Your task to perform on an android device: set default search engine in the chrome app Image 0: 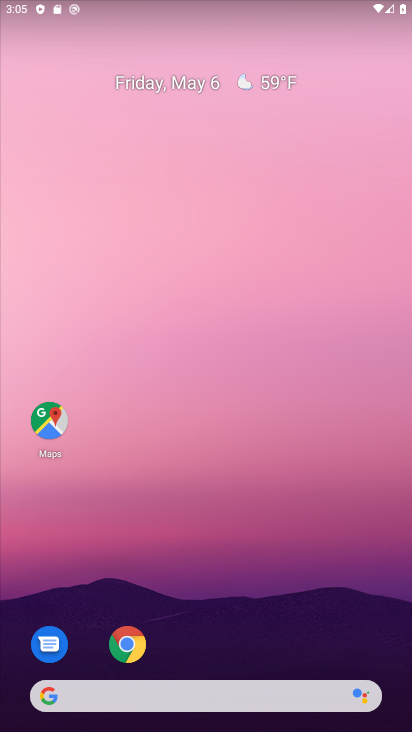
Step 0: click (127, 647)
Your task to perform on an android device: set default search engine in the chrome app Image 1: 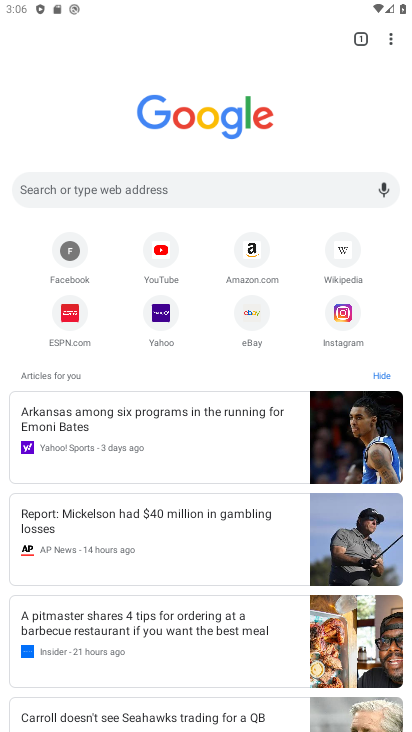
Step 1: click (392, 36)
Your task to perform on an android device: set default search engine in the chrome app Image 2: 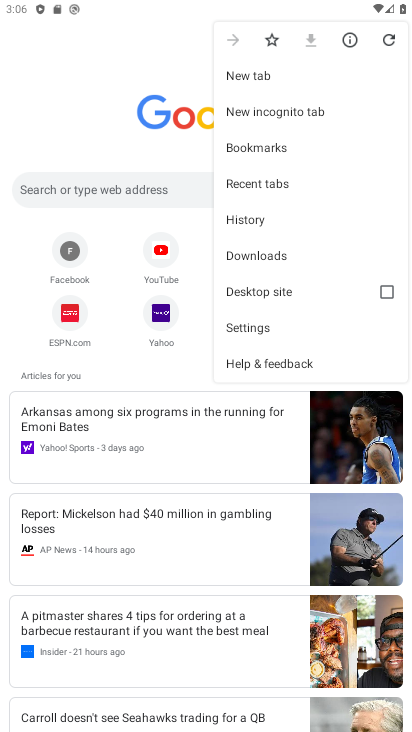
Step 2: click (250, 333)
Your task to perform on an android device: set default search engine in the chrome app Image 3: 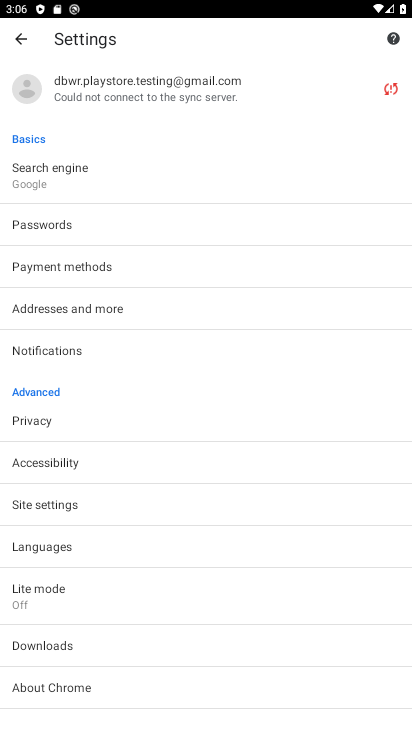
Step 3: click (79, 173)
Your task to perform on an android device: set default search engine in the chrome app Image 4: 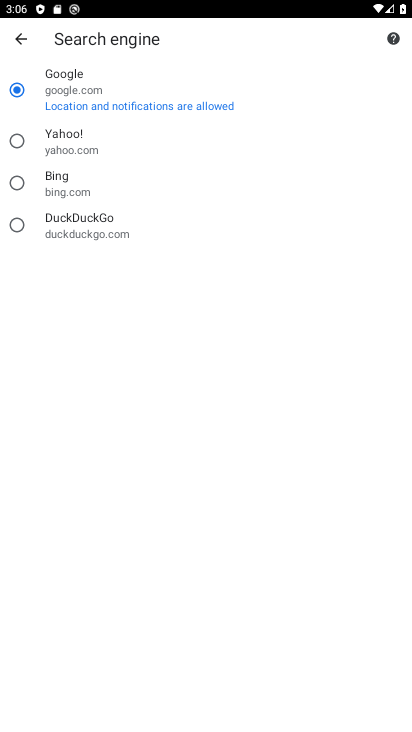
Step 4: click (64, 83)
Your task to perform on an android device: set default search engine in the chrome app Image 5: 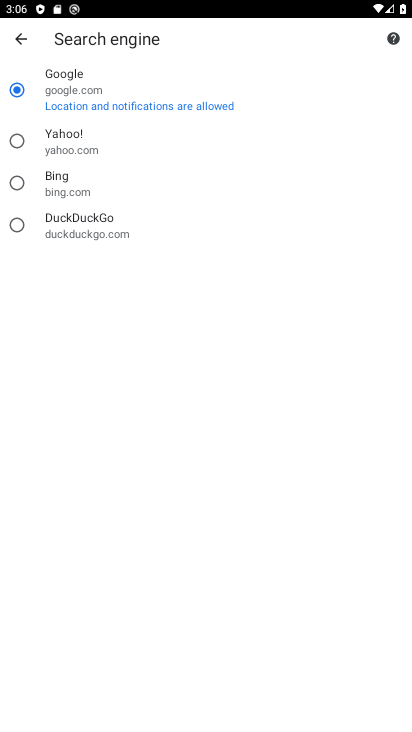
Step 5: click (13, 143)
Your task to perform on an android device: set default search engine in the chrome app Image 6: 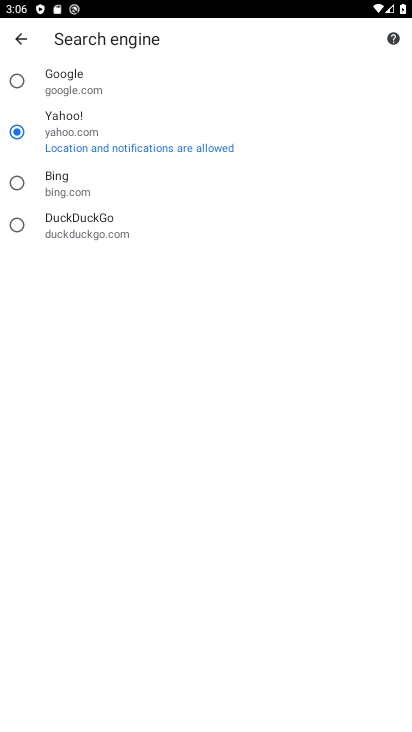
Step 6: task complete